Your task to perform on an android device: What is the recent news? Image 0: 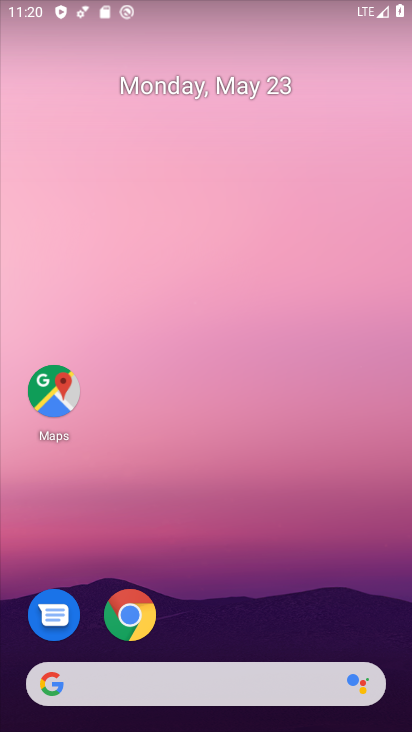
Step 0: click (125, 675)
Your task to perform on an android device: What is the recent news? Image 1: 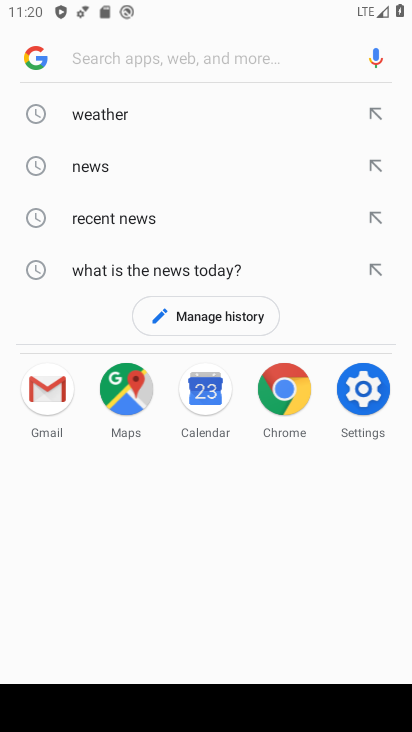
Step 1: click (109, 233)
Your task to perform on an android device: What is the recent news? Image 2: 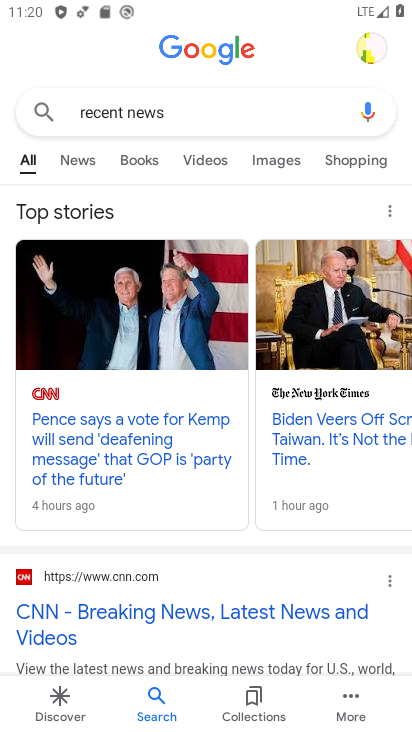
Step 2: task complete